Your task to perform on an android device: turn on improve location accuracy Image 0: 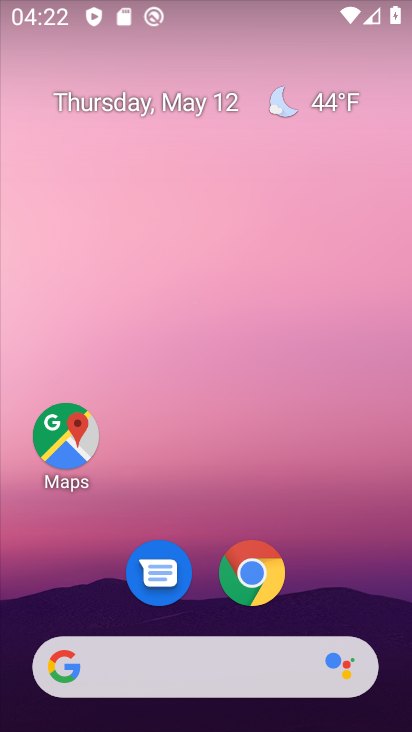
Step 0: drag from (397, 634) to (297, 153)
Your task to perform on an android device: turn on improve location accuracy Image 1: 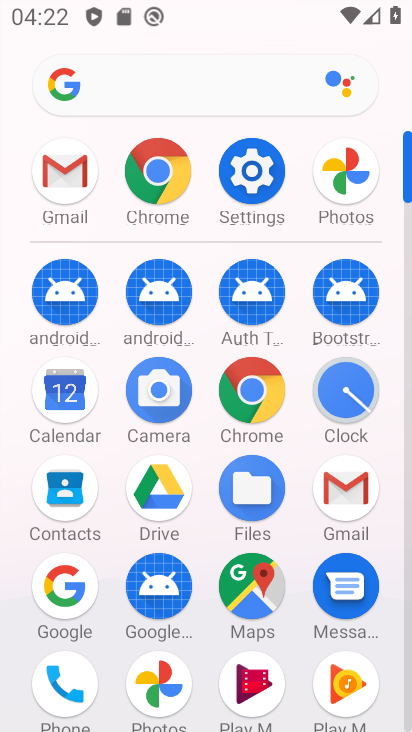
Step 1: click (408, 689)
Your task to perform on an android device: turn on improve location accuracy Image 2: 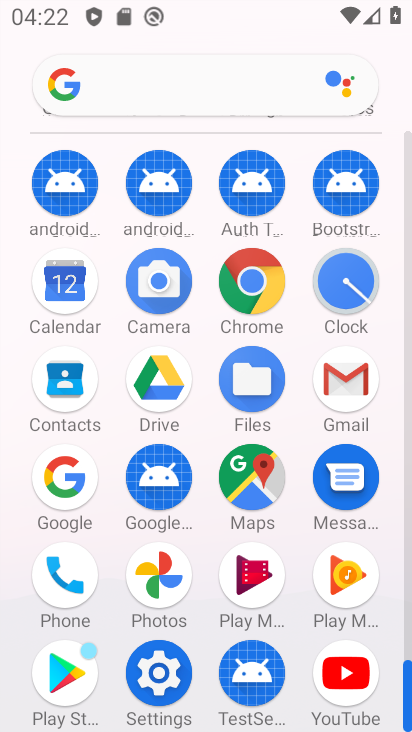
Step 2: click (164, 672)
Your task to perform on an android device: turn on improve location accuracy Image 3: 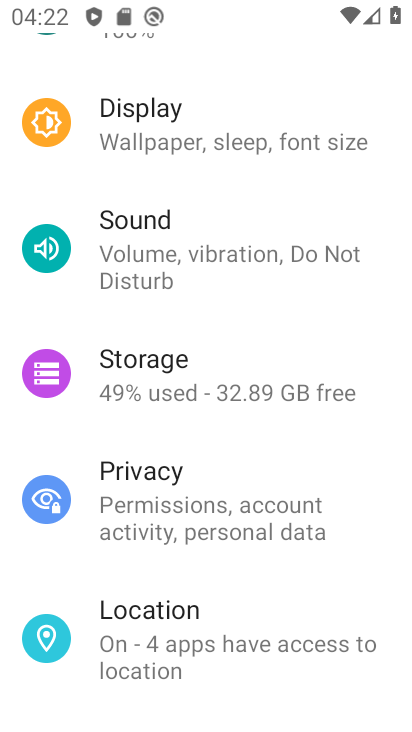
Step 3: click (171, 631)
Your task to perform on an android device: turn on improve location accuracy Image 4: 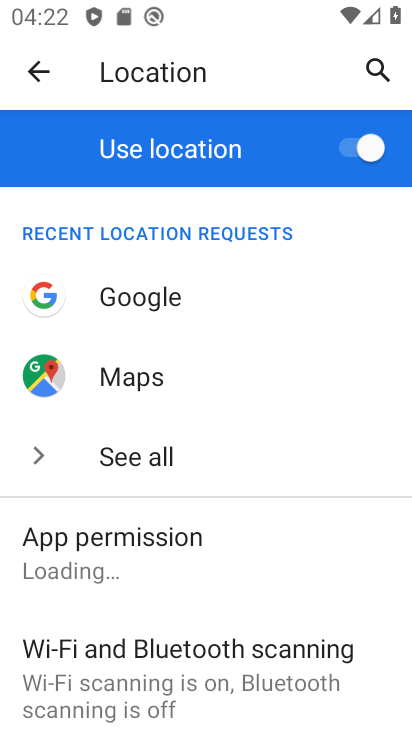
Step 4: drag from (329, 660) to (215, 170)
Your task to perform on an android device: turn on improve location accuracy Image 5: 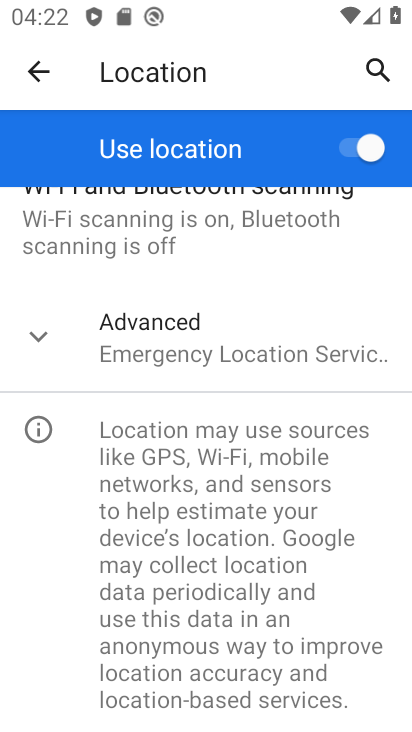
Step 5: click (29, 335)
Your task to perform on an android device: turn on improve location accuracy Image 6: 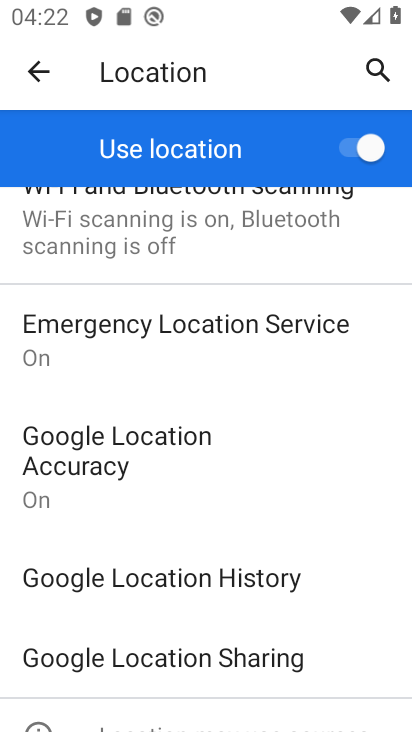
Step 6: click (82, 454)
Your task to perform on an android device: turn on improve location accuracy Image 7: 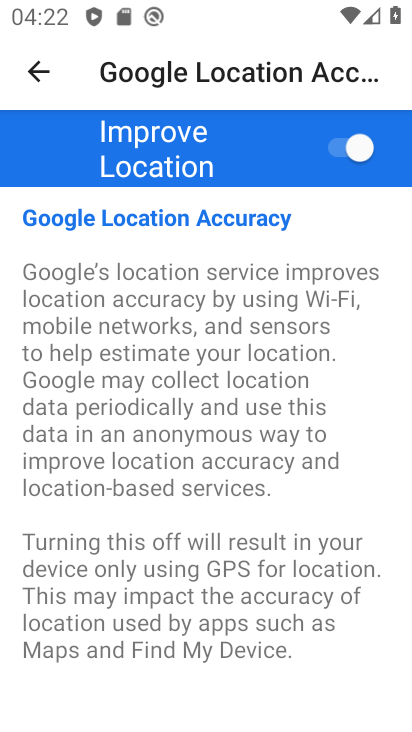
Step 7: task complete